Your task to perform on an android device: Open Google Chrome Image 0: 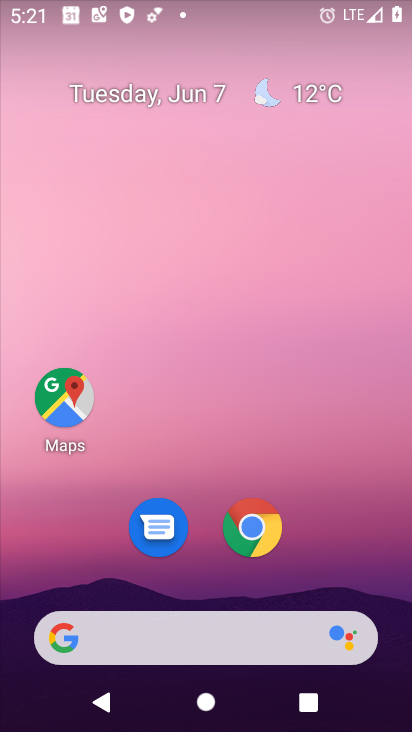
Step 0: click (251, 527)
Your task to perform on an android device: Open Google Chrome Image 1: 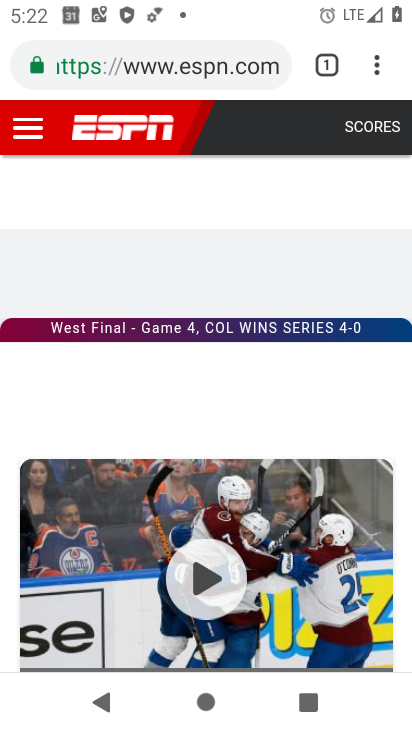
Step 1: task complete